Your task to perform on an android device: What is the news today? Image 0: 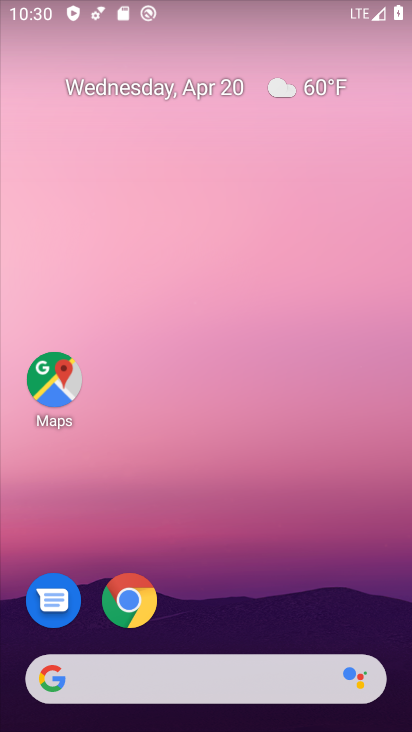
Step 0: drag from (343, 604) to (309, 119)
Your task to perform on an android device: What is the news today? Image 1: 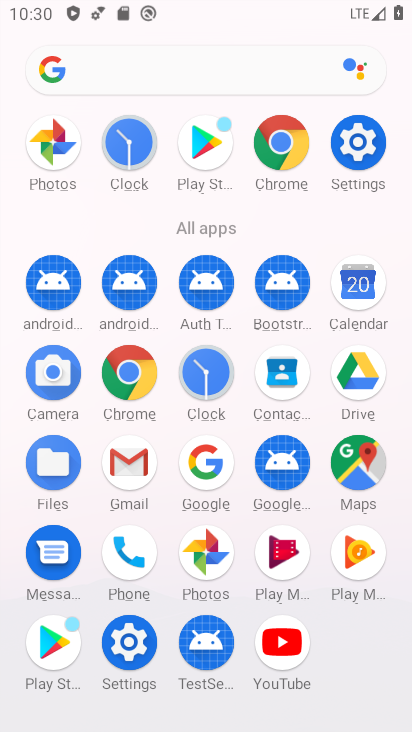
Step 1: click (138, 373)
Your task to perform on an android device: What is the news today? Image 2: 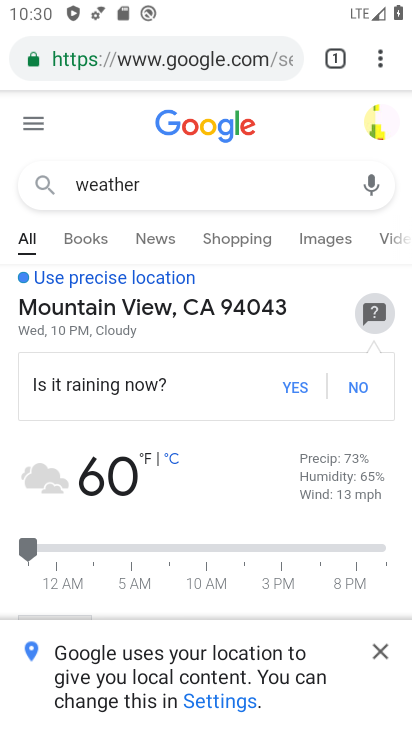
Step 2: click (256, 196)
Your task to perform on an android device: What is the news today? Image 3: 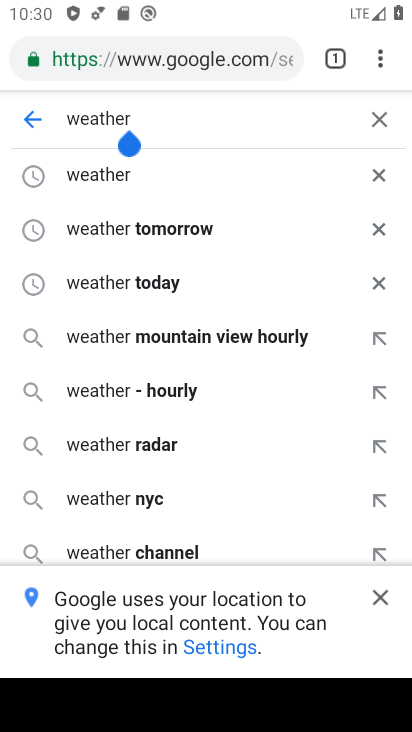
Step 3: click (379, 122)
Your task to perform on an android device: What is the news today? Image 4: 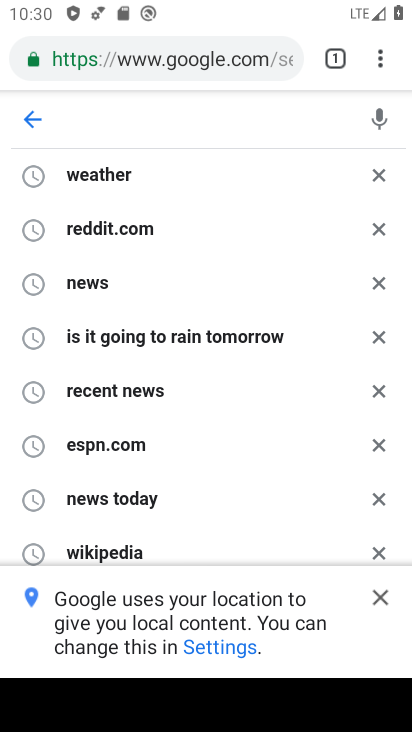
Step 4: click (133, 286)
Your task to perform on an android device: What is the news today? Image 5: 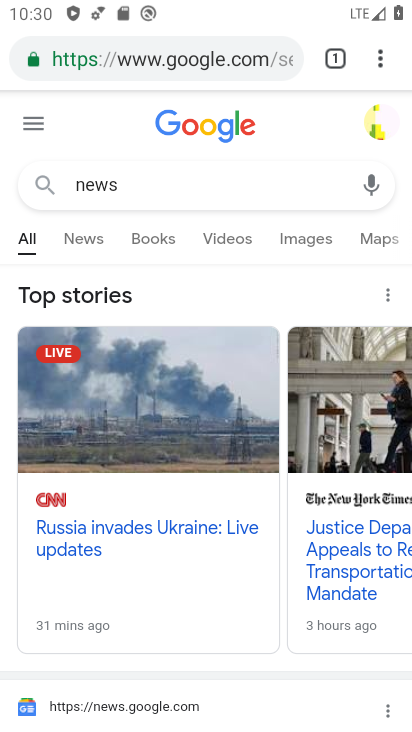
Step 5: click (92, 241)
Your task to perform on an android device: What is the news today? Image 6: 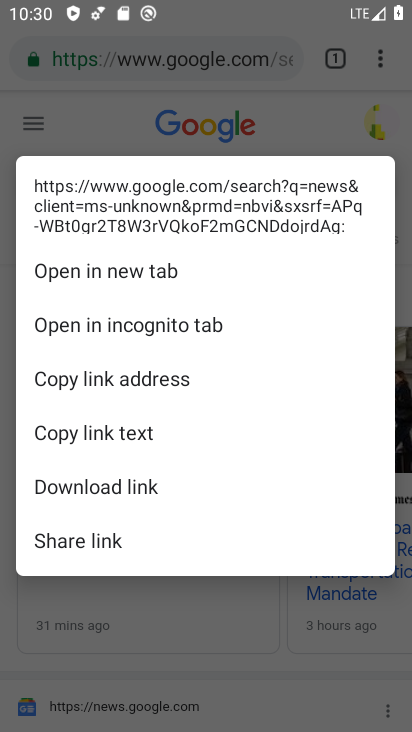
Step 6: click (278, 113)
Your task to perform on an android device: What is the news today? Image 7: 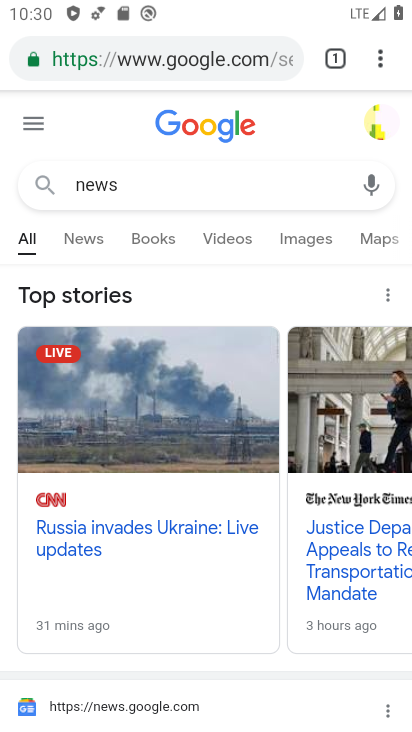
Step 7: click (87, 245)
Your task to perform on an android device: What is the news today? Image 8: 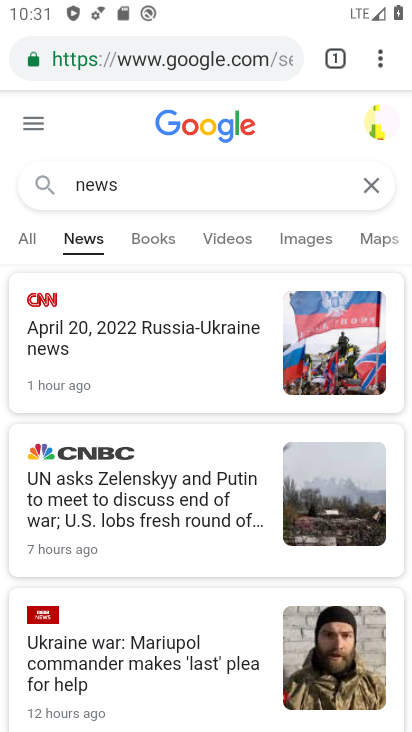
Step 8: task complete